Your task to perform on an android device: set an alarm Image 0: 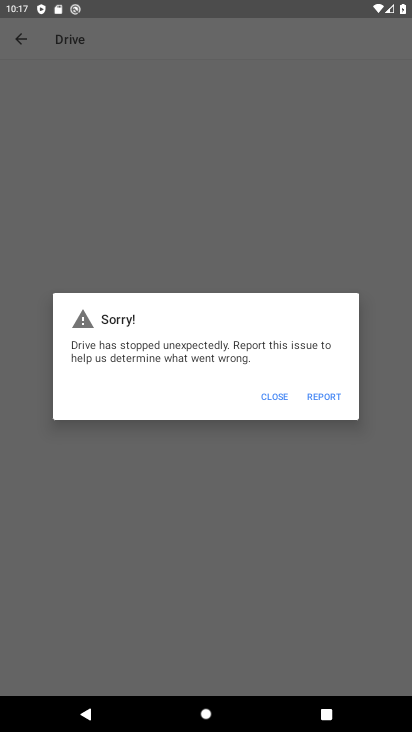
Step 0: press home button
Your task to perform on an android device: set an alarm Image 1: 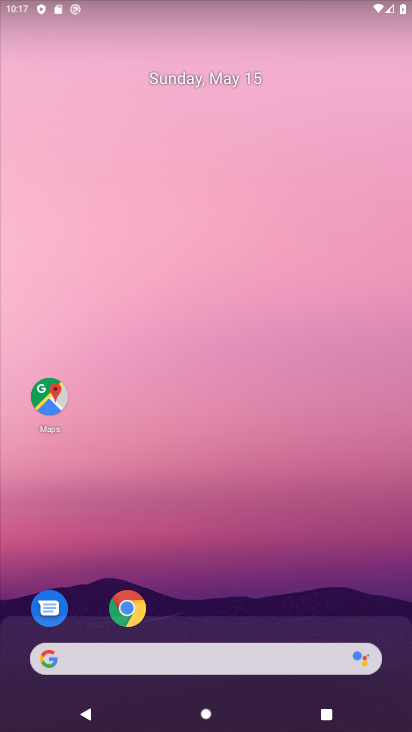
Step 1: drag from (341, 575) to (279, 82)
Your task to perform on an android device: set an alarm Image 2: 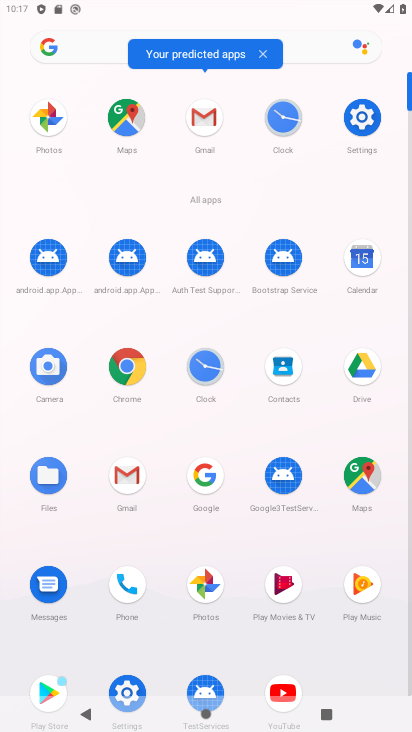
Step 2: click (196, 361)
Your task to perform on an android device: set an alarm Image 3: 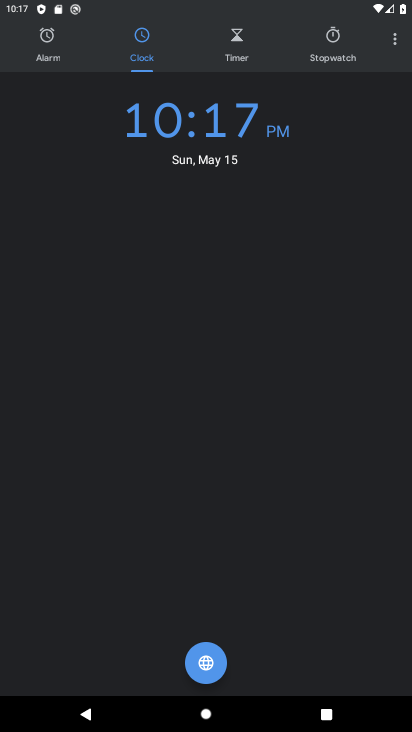
Step 3: click (59, 37)
Your task to perform on an android device: set an alarm Image 4: 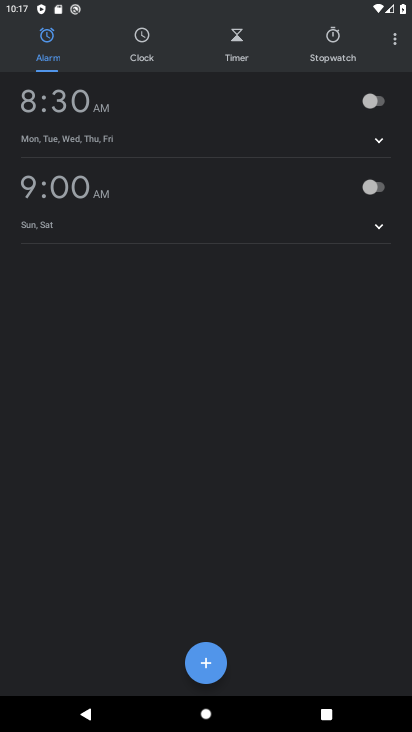
Step 4: click (208, 675)
Your task to perform on an android device: set an alarm Image 5: 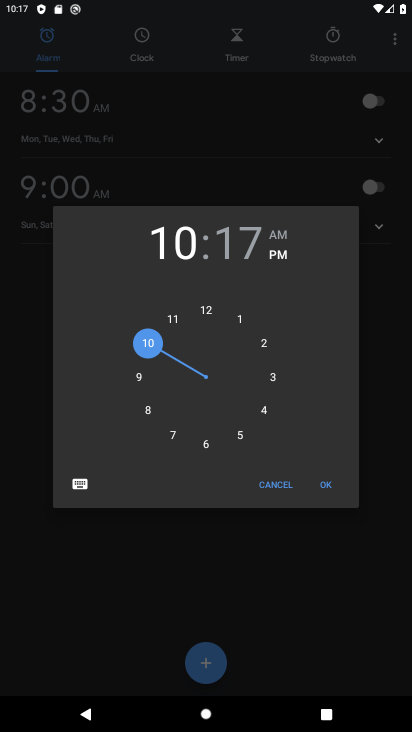
Step 5: click (326, 486)
Your task to perform on an android device: set an alarm Image 6: 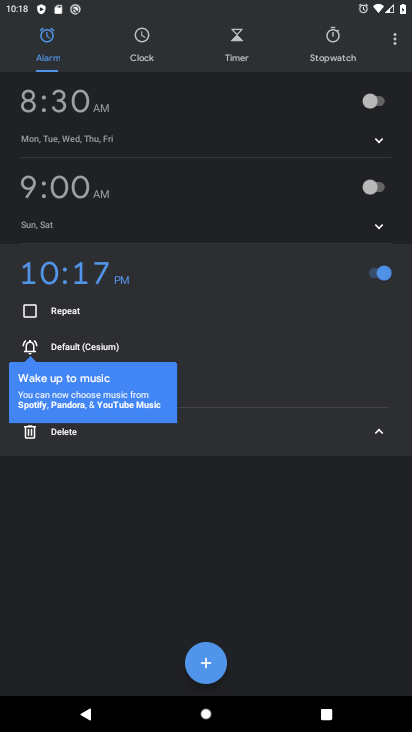
Step 6: task complete